Your task to perform on an android device: What's on my calendar today? Image 0: 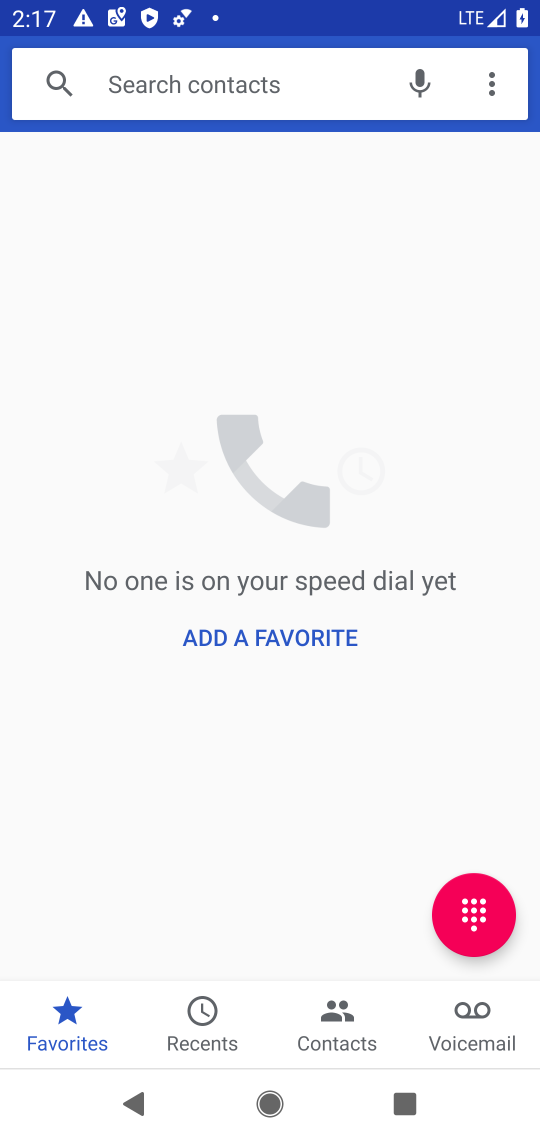
Step 0: press home button
Your task to perform on an android device: What's on my calendar today? Image 1: 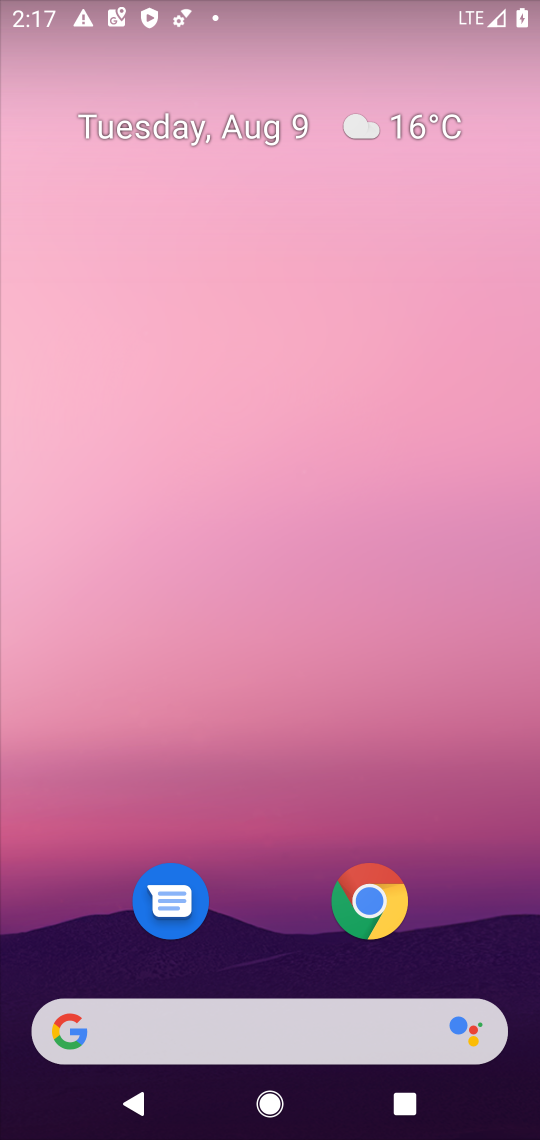
Step 1: drag from (505, 938) to (471, 236)
Your task to perform on an android device: What's on my calendar today? Image 2: 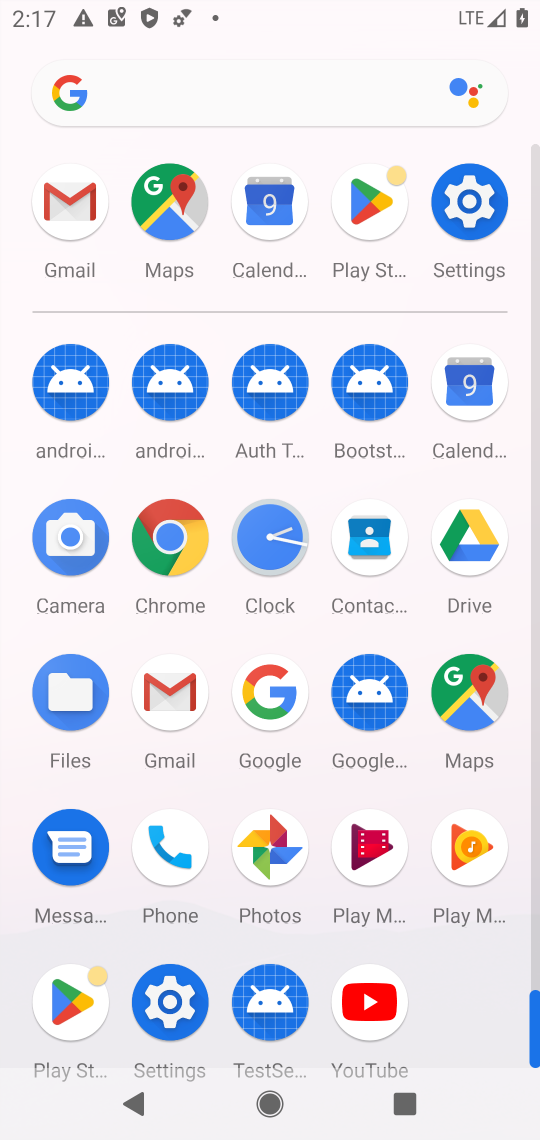
Step 2: click (469, 379)
Your task to perform on an android device: What's on my calendar today? Image 3: 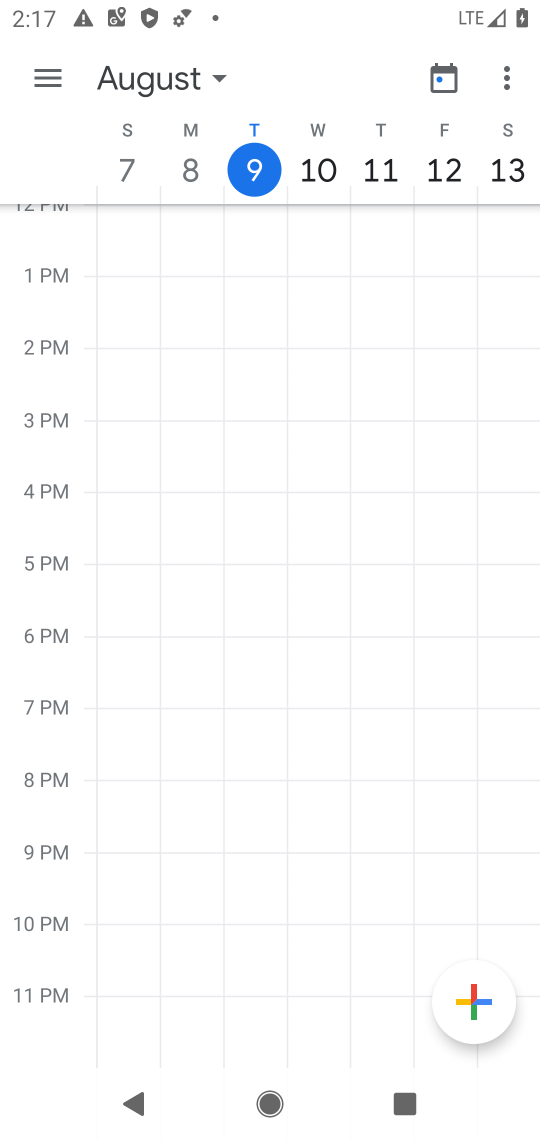
Step 3: click (47, 76)
Your task to perform on an android device: What's on my calendar today? Image 4: 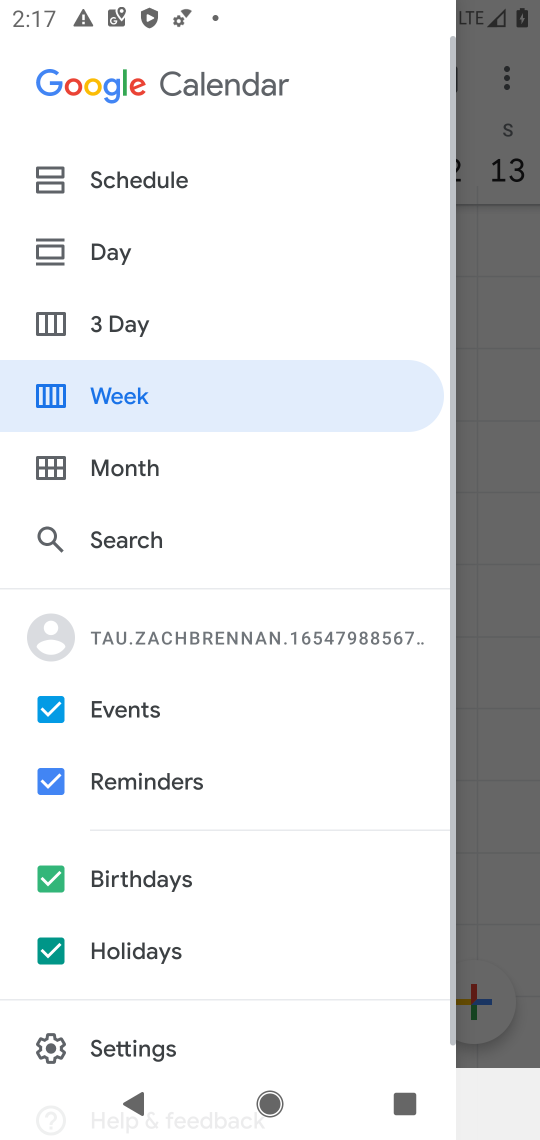
Step 4: click (114, 247)
Your task to perform on an android device: What's on my calendar today? Image 5: 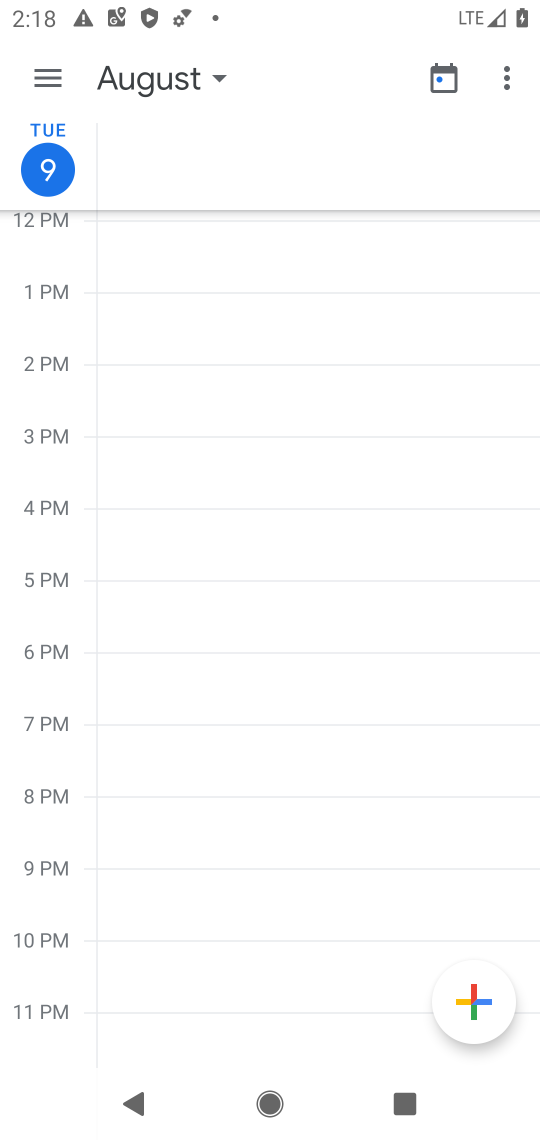
Step 5: task complete